Your task to perform on an android device: Do I have any events tomorrow? Image 0: 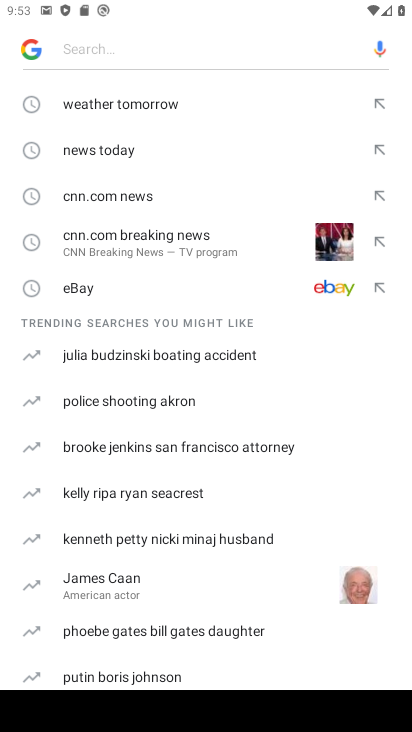
Step 0: press home button
Your task to perform on an android device: Do I have any events tomorrow? Image 1: 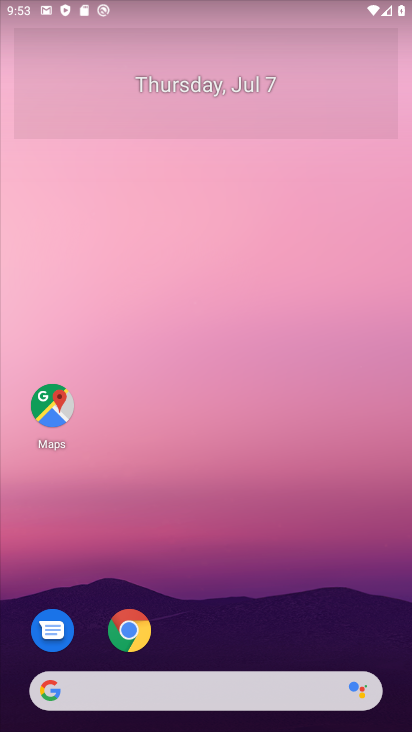
Step 1: drag from (56, 653) to (150, 78)
Your task to perform on an android device: Do I have any events tomorrow? Image 2: 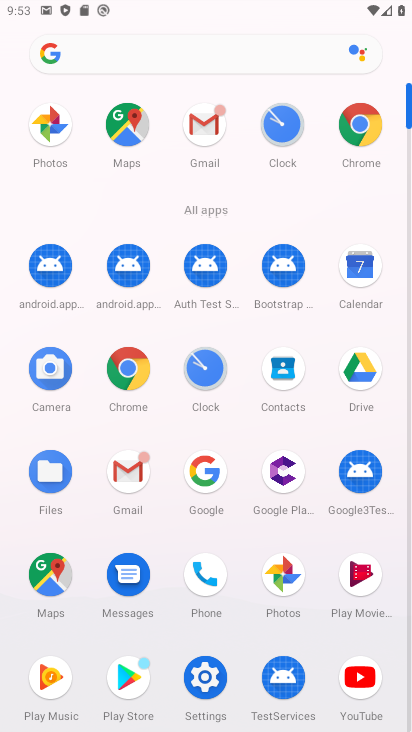
Step 2: click (366, 269)
Your task to perform on an android device: Do I have any events tomorrow? Image 3: 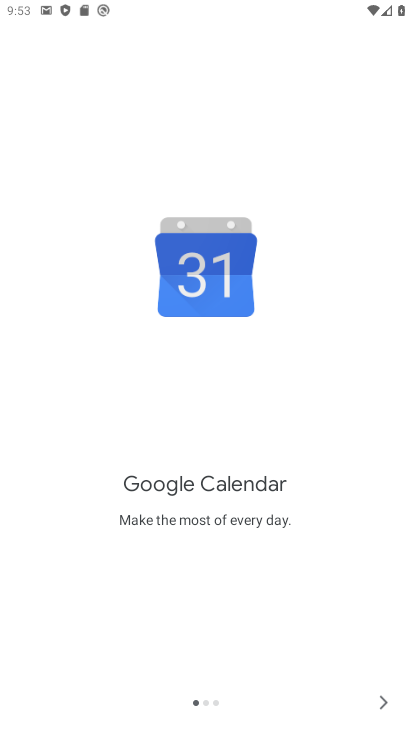
Step 3: click (376, 700)
Your task to perform on an android device: Do I have any events tomorrow? Image 4: 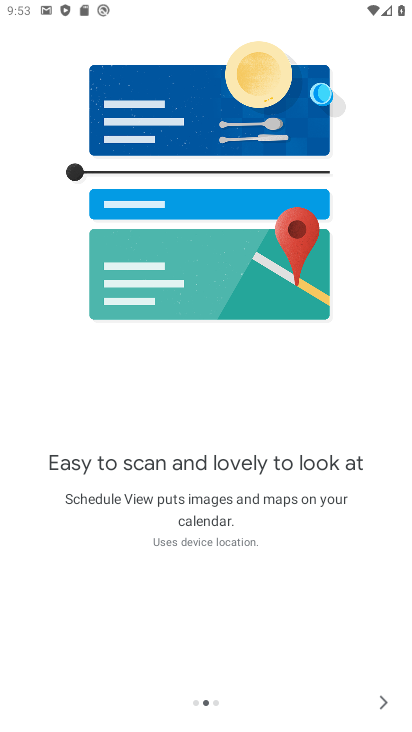
Step 4: click (376, 707)
Your task to perform on an android device: Do I have any events tomorrow? Image 5: 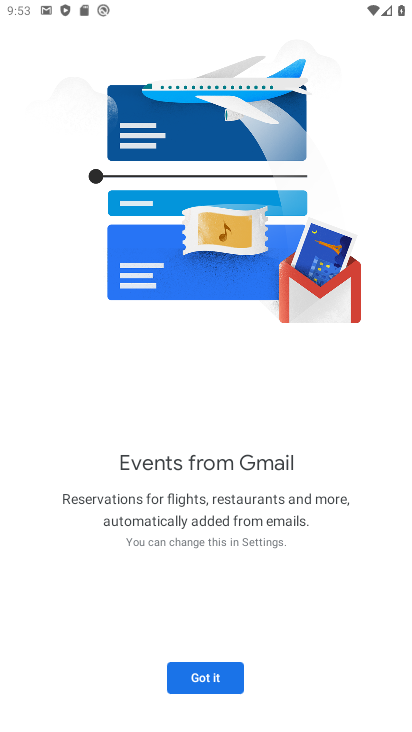
Step 5: click (188, 678)
Your task to perform on an android device: Do I have any events tomorrow? Image 6: 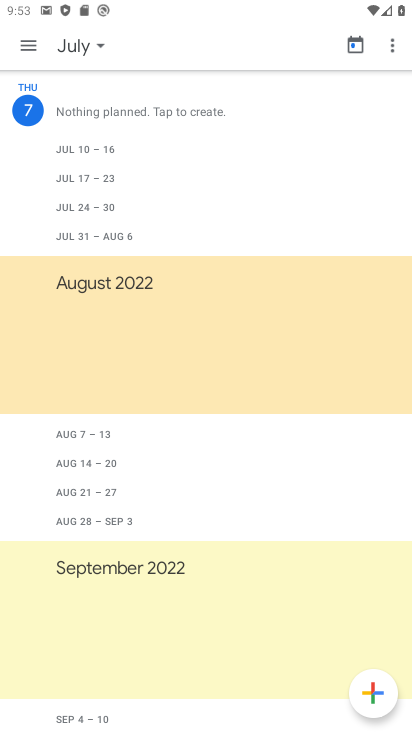
Step 6: click (73, 46)
Your task to perform on an android device: Do I have any events tomorrow? Image 7: 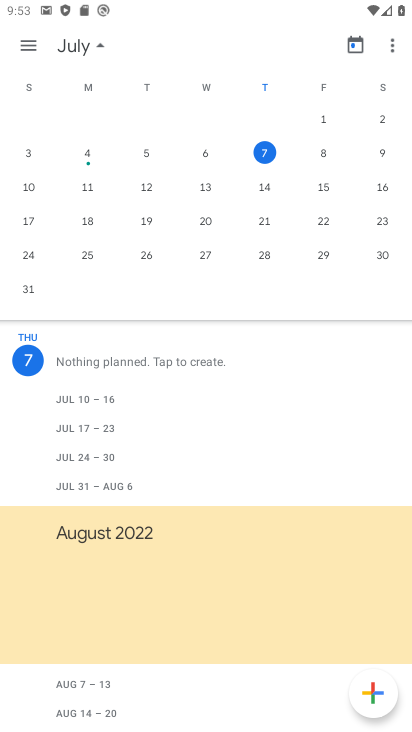
Step 7: click (32, 45)
Your task to perform on an android device: Do I have any events tomorrow? Image 8: 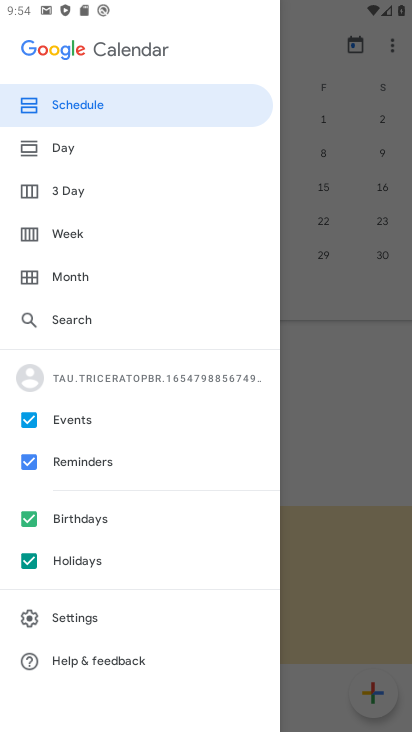
Step 8: click (332, 422)
Your task to perform on an android device: Do I have any events tomorrow? Image 9: 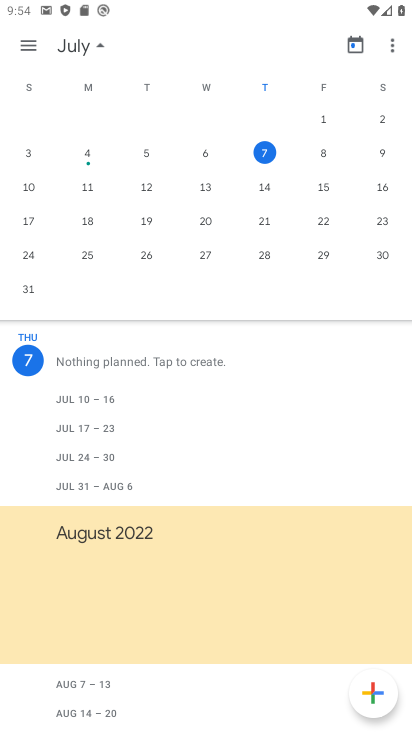
Step 9: task complete